Your task to perform on an android device: change the clock display to digital Image 0: 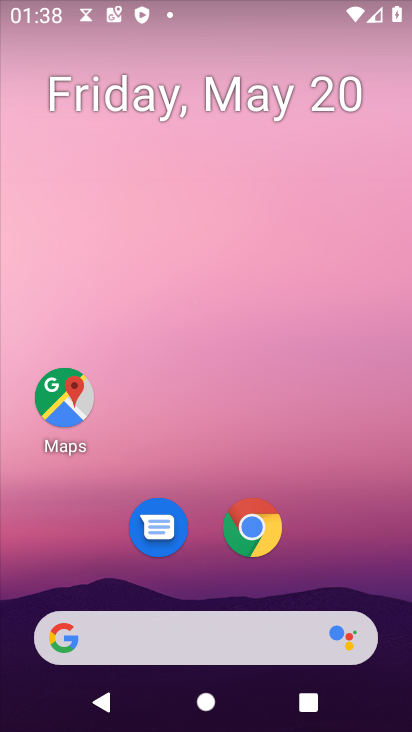
Step 0: press home button
Your task to perform on an android device: change the clock display to digital Image 1: 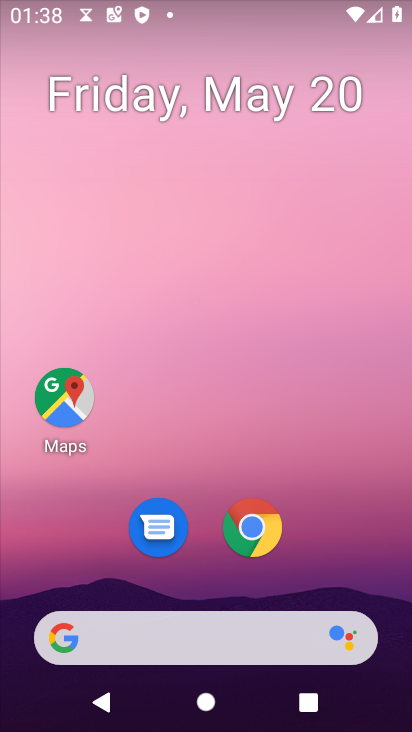
Step 1: drag from (178, 645) to (287, 209)
Your task to perform on an android device: change the clock display to digital Image 2: 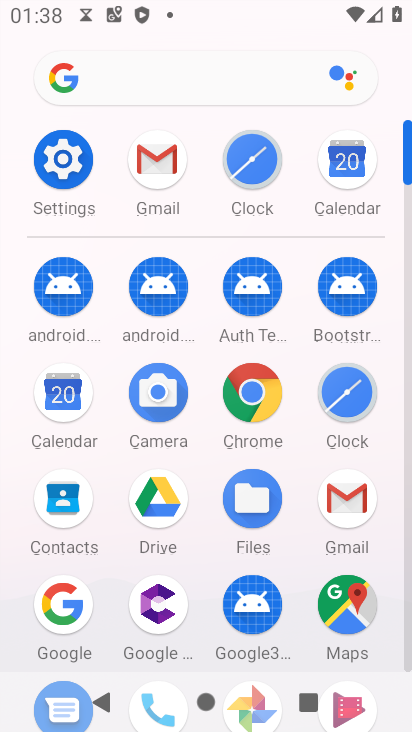
Step 2: click (251, 172)
Your task to perform on an android device: change the clock display to digital Image 3: 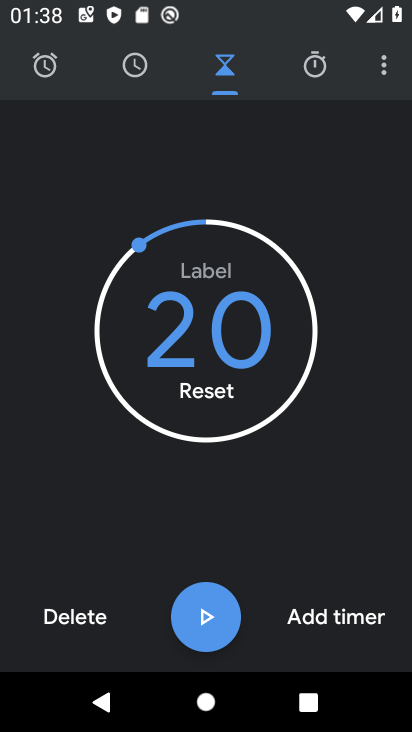
Step 3: click (381, 74)
Your task to perform on an android device: change the clock display to digital Image 4: 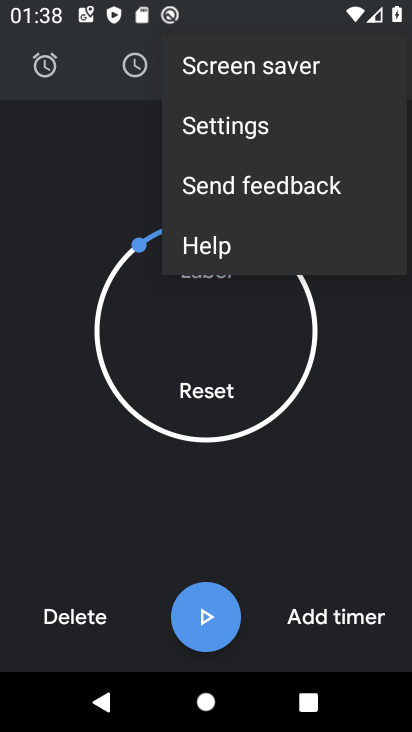
Step 4: click (247, 125)
Your task to perform on an android device: change the clock display to digital Image 5: 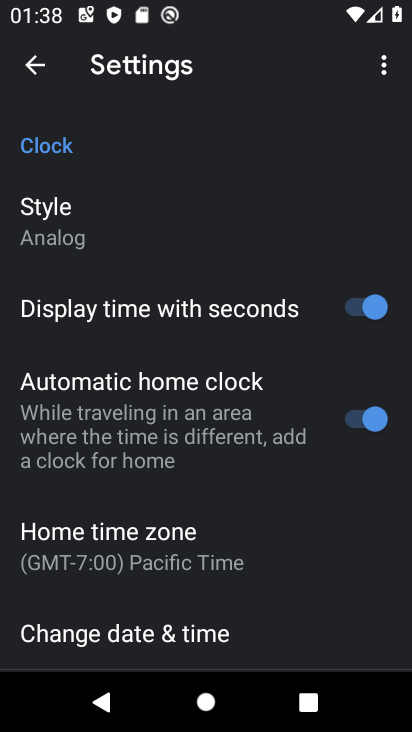
Step 5: click (61, 242)
Your task to perform on an android device: change the clock display to digital Image 6: 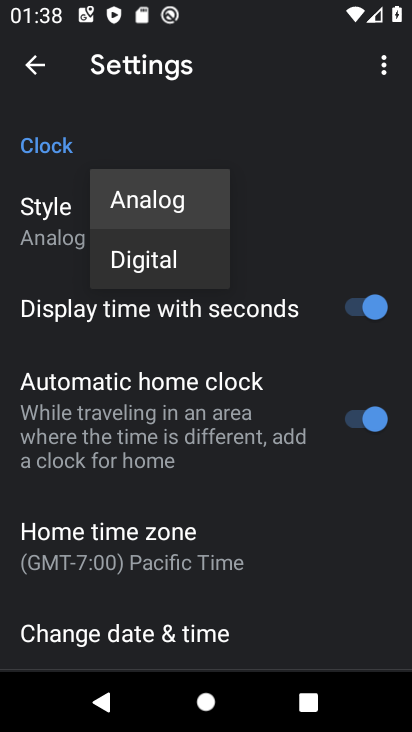
Step 6: click (140, 258)
Your task to perform on an android device: change the clock display to digital Image 7: 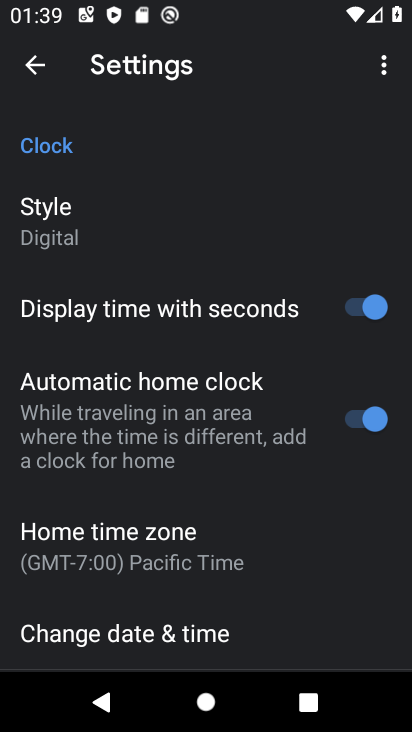
Step 7: task complete